Your task to perform on an android device: move an email to a new category in the gmail app Image 0: 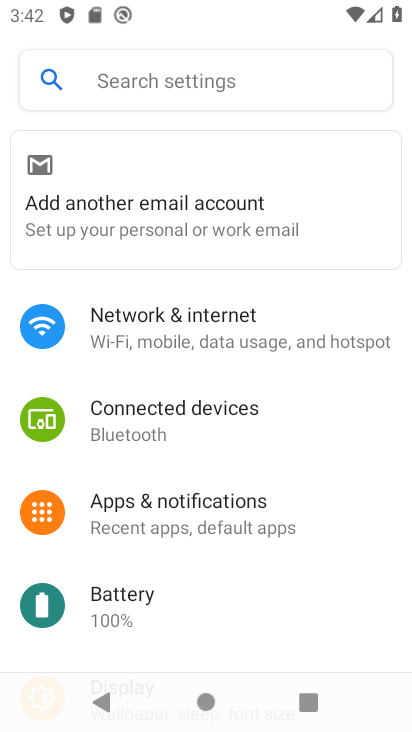
Step 0: press home button
Your task to perform on an android device: move an email to a new category in the gmail app Image 1: 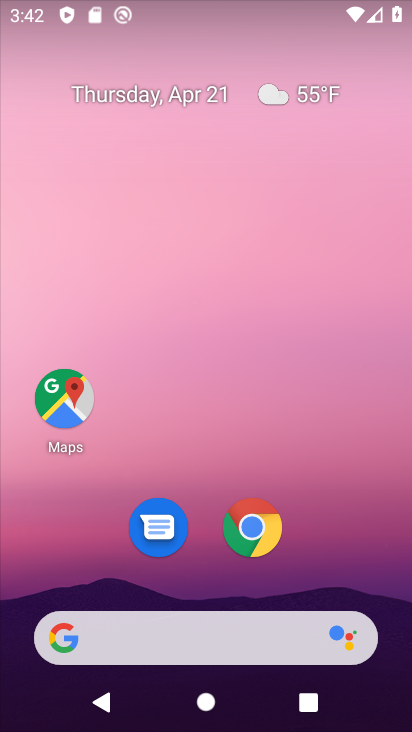
Step 1: drag from (234, 506) to (246, 211)
Your task to perform on an android device: move an email to a new category in the gmail app Image 2: 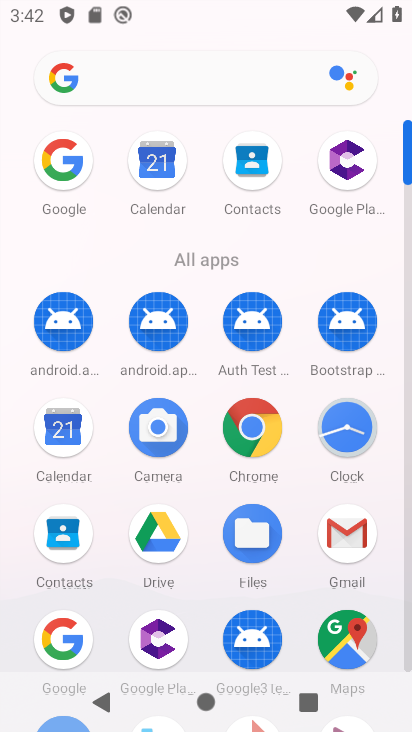
Step 2: click (358, 522)
Your task to perform on an android device: move an email to a new category in the gmail app Image 3: 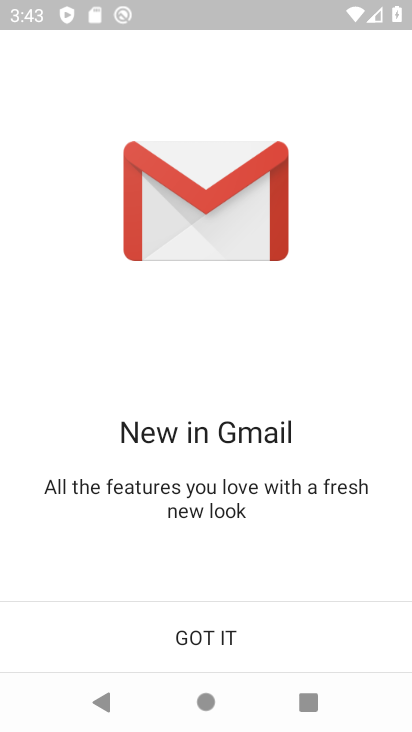
Step 3: click (184, 654)
Your task to perform on an android device: move an email to a new category in the gmail app Image 4: 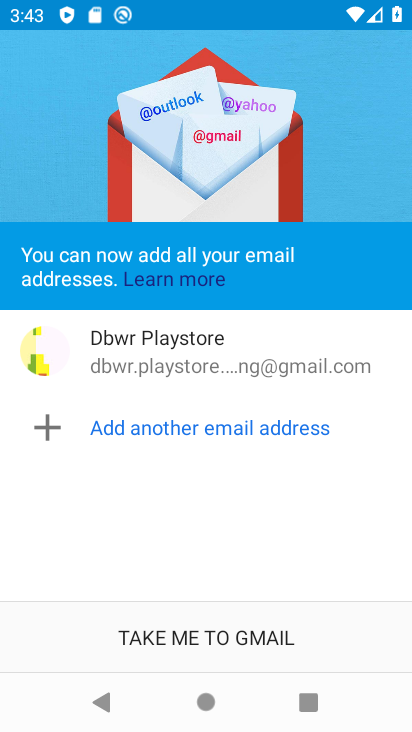
Step 4: click (188, 620)
Your task to perform on an android device: move an email to a new category in the gmail app Image 5: 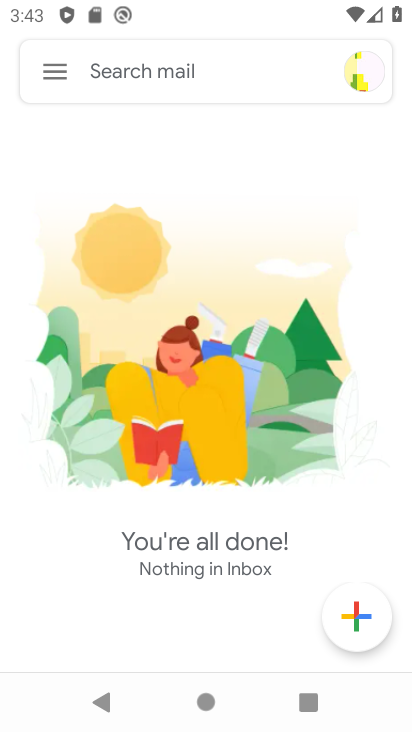
Step 5: click (52, 74)
Your task to perform on an android device: move an email to a new category in the gmail app Image 6: 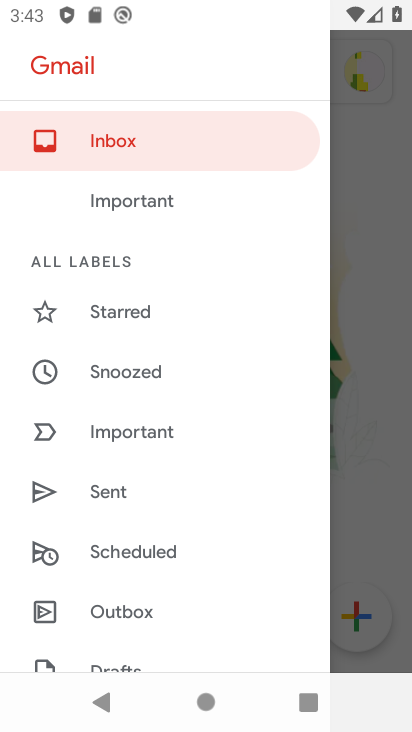
Step 6: drag from (137, 632) to (178, 359)
Your task to perform on an android device: move an email to a new category in the gmail app Image 7: 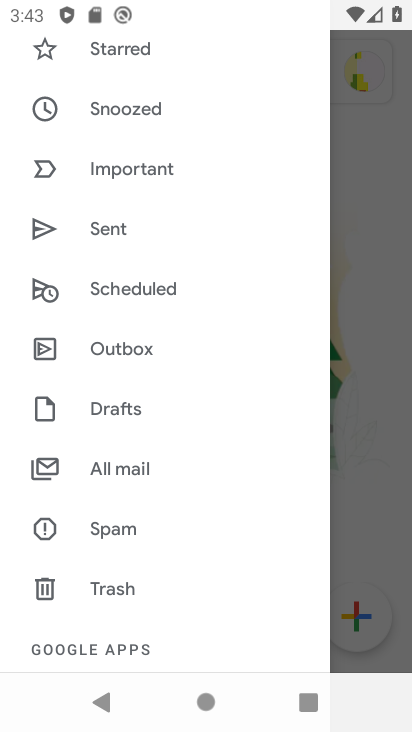
Step 7: click (126, 473)
Your task to perform on an android device: move an email to a new category in the gmail app Image 8: 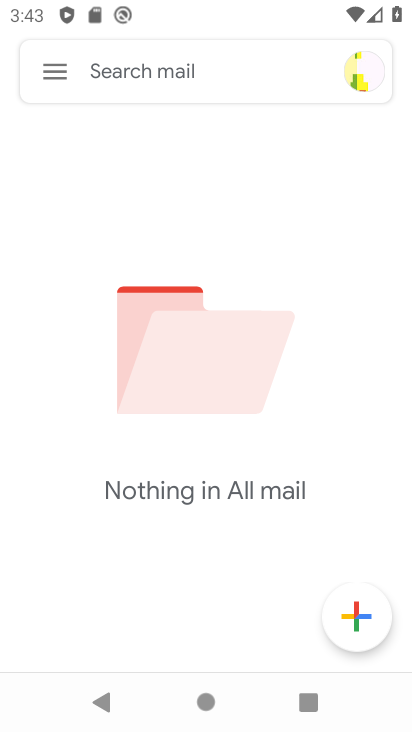
Step 8: task complete